Your task to perform on an android device: check battery use Image 0: 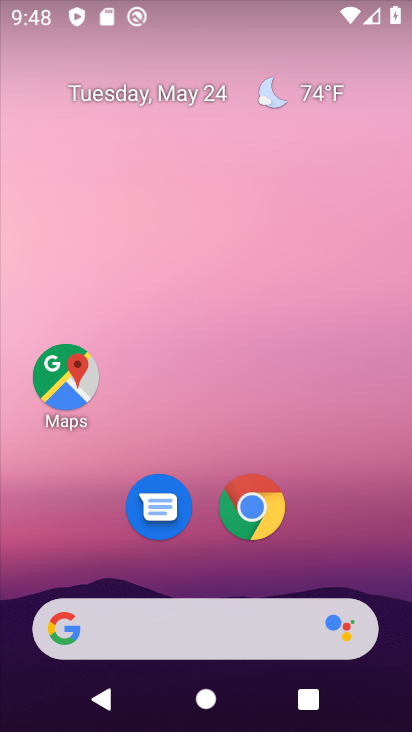
Step 0: drag from (234, 716) to (236, 123)
Your task to perform on an android device: check battery use Image 1: 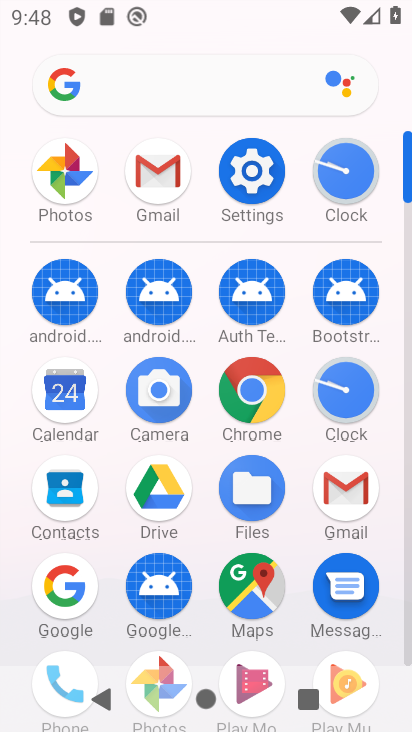
Step 1: click (246, 179)
Your task to perform on an android device: check battery use Image 2: 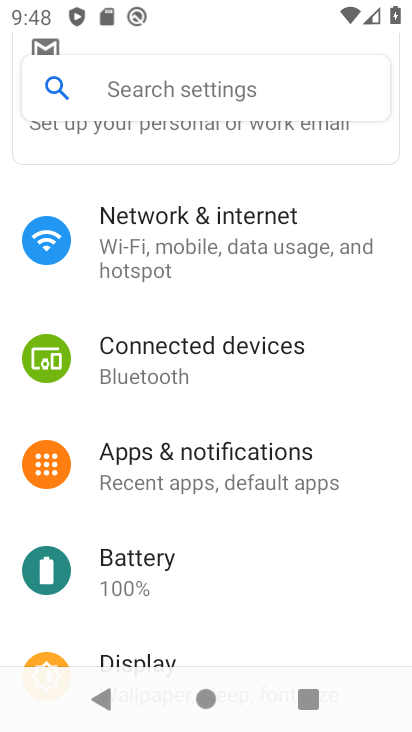
Step 2: click (124, 554)
Your task to perform on an android device: check battery use Image 3: 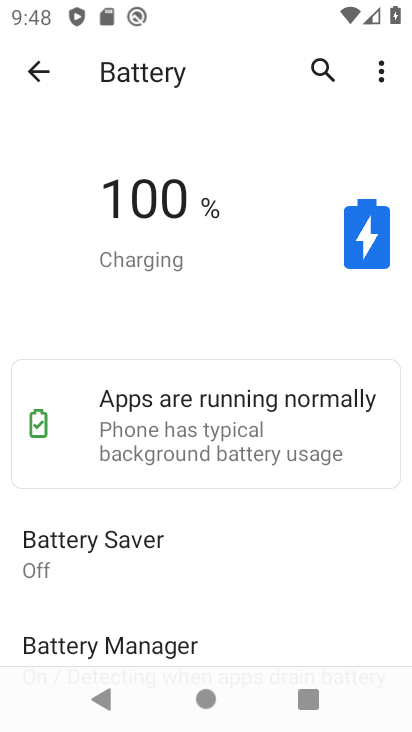
Step 3: click (382, 76)
Your task to perform on an android device: check battery use Image 4: 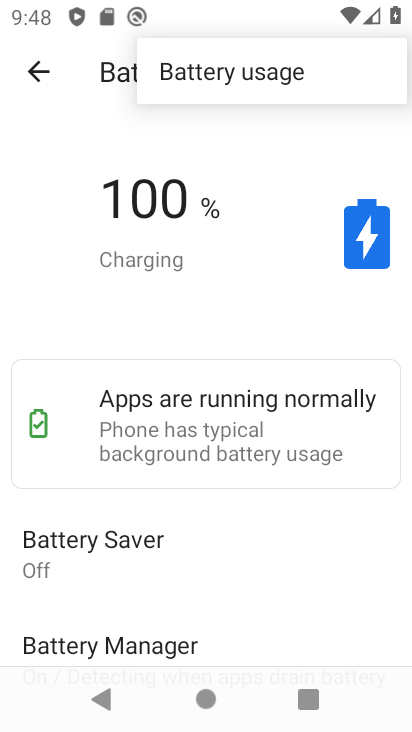
Step 4: click (208, 71)
Your task to perform on an android device: check battery use Image 5: 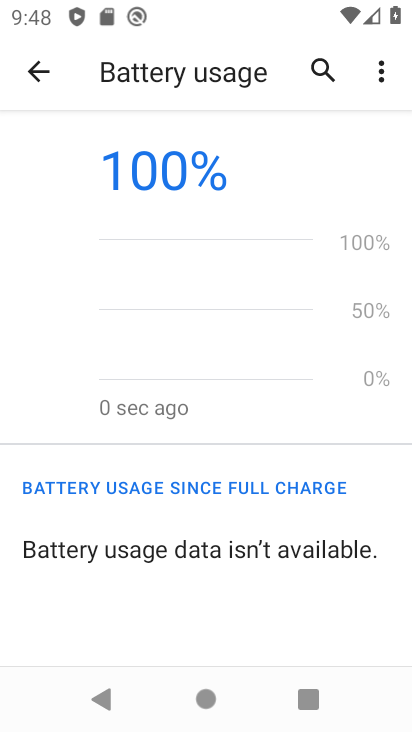
Step 5: task complete